Your task to perform on an android device: see sites visited before in the chrome app Image 0: 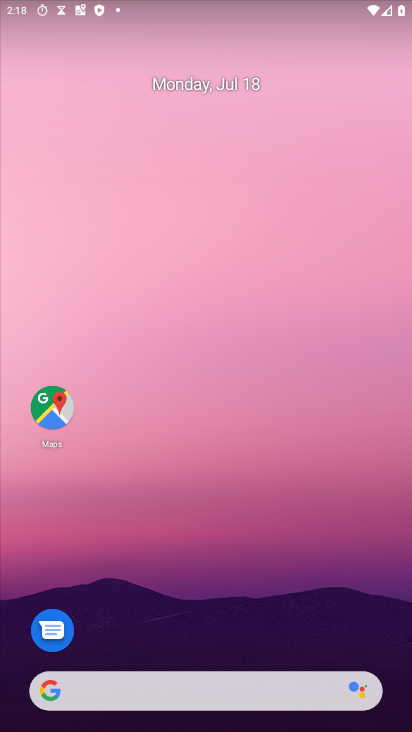
Step 0: drag from (227, 678) to (261, 17)
Your task to perform on an android device: see sites visited before in the chrome app Image 1: 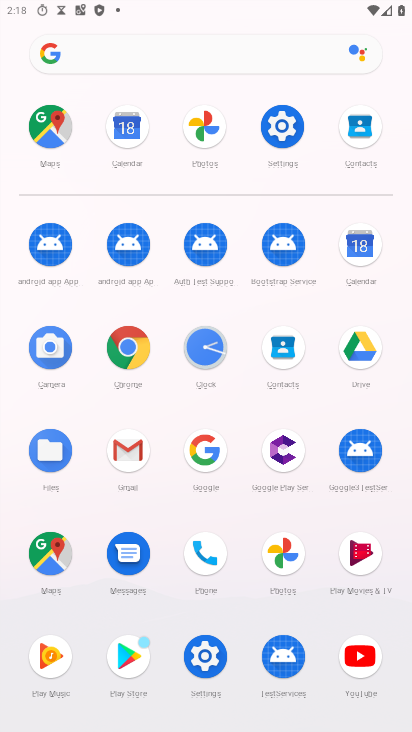
Step 1: click (116, 332)
Your task to perform on an android device: see sites visited before in the chrome app Image 2: 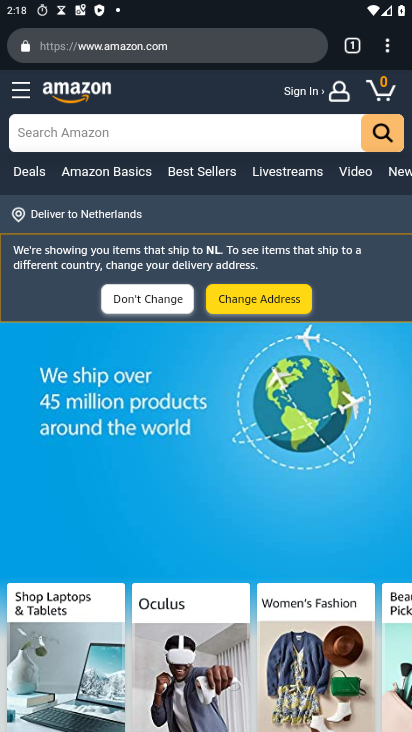
Step 2: task complete